Your task to perform on an android device: Open calendar and show me the fourth week of next month Image 0: 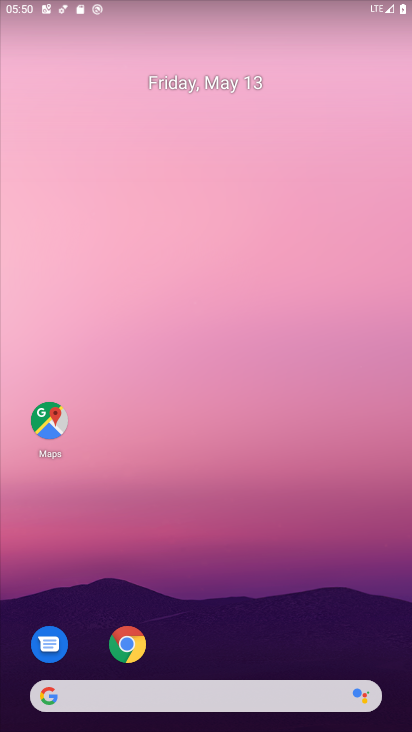
Step 0: drag from (240, 641) to (325, 0)
Your task to perform on an android device: Open calendar and show me the fourth week of next month Image 1: 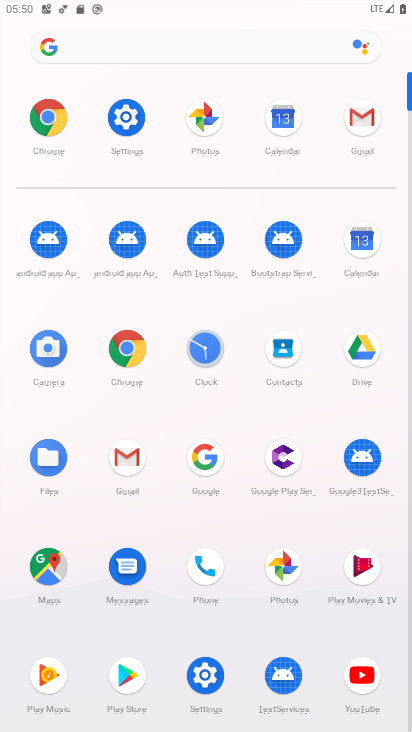
Step 1: click (363, 258)
Your task to perform on an android device: Open calendar and show me the fourth week of next month Image 2: 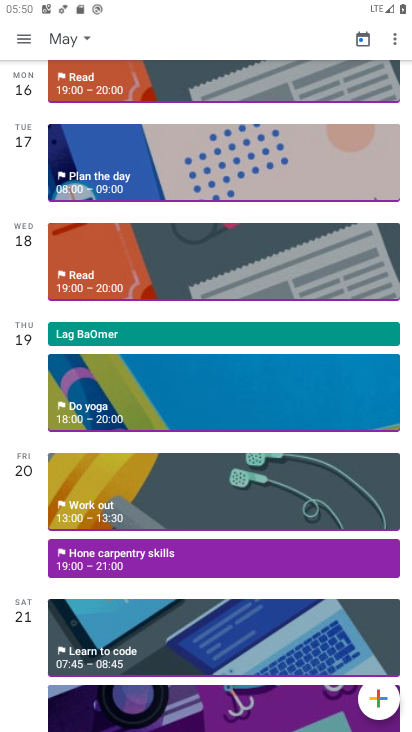
Step 2: click (24, 36)
Your task to perform on an android device: Open calendar and show me the fourth week of next month Image 3: 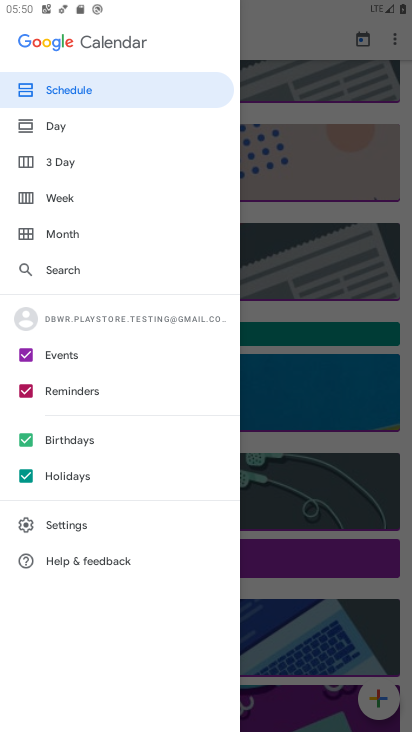
Step 3: click (70, 197)
Your task to perform on an android device: Open calendar and show me the fourth week of next month Image 4: 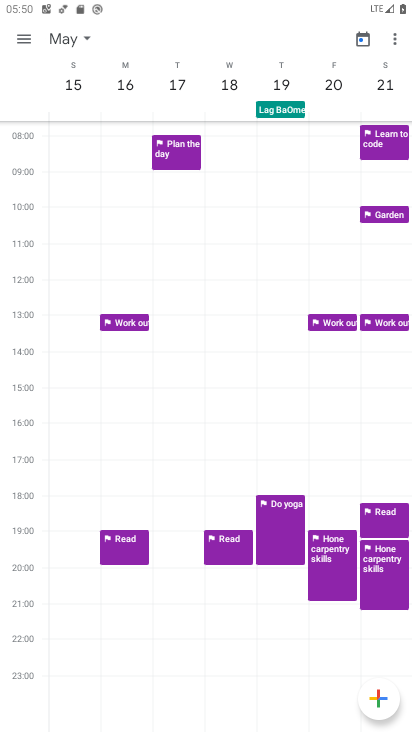
Step 4: task complete